Your task to perform on an android device: set an alarm Image 0: 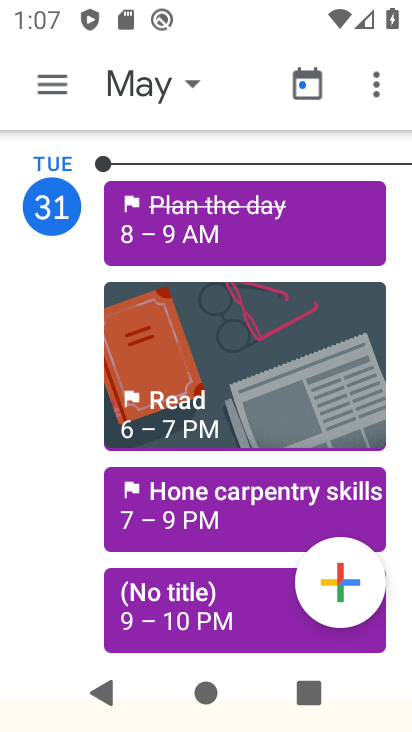
Step 0: task complete